Your task to perform on an android device: find snoozed emails in the gmail app Image 0: 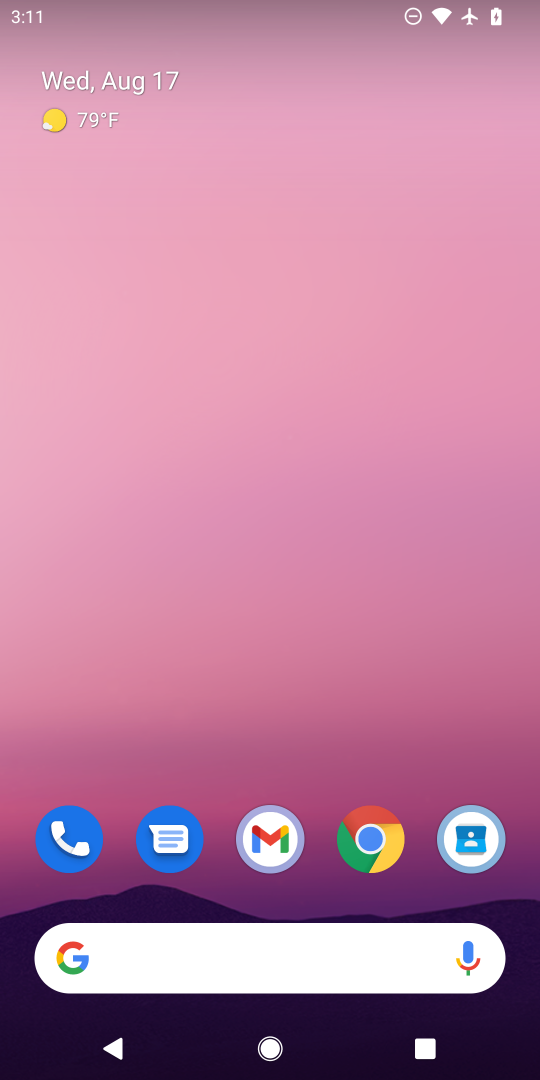
Step 0: drag from (324, 769) to (318, 72)
Your task to perform on an android device: find snoozed emails in the gmail app Image 1: 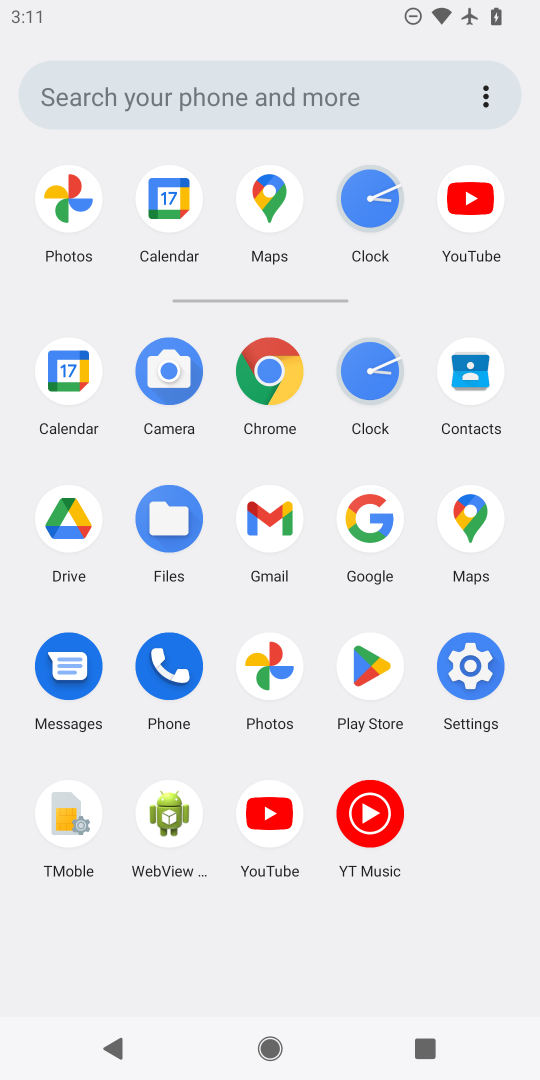
Step 1: click (261, 524)
Your task to perform on an android device: find snoozed emails in the gmail app Image 2: 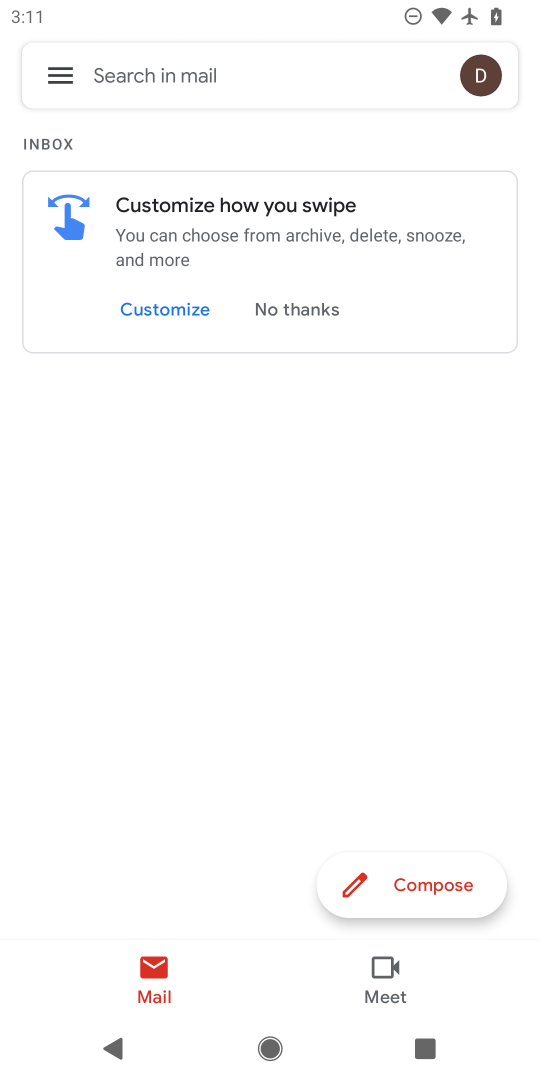
Step 2: task complete